Your task to perform on an android device: Open the calendar app, open the side menu, and click the "Day" option Image 0: 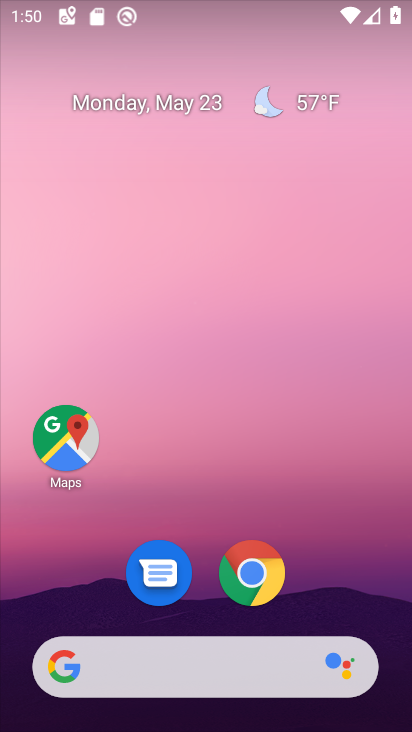
Step 0: drag from (325, 555) to (321, 135)
Your task to perform on an android device: Open the calendar app, open the side menu, and click the "Day" option Image 1: 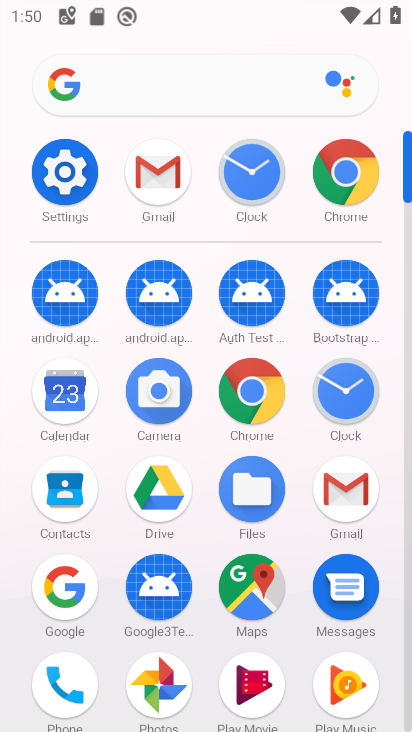
Step 1: click (68, 393)
Your task to perform on an android device: Open the calendar app, open the side menu, and click the "Day" option Image 2: 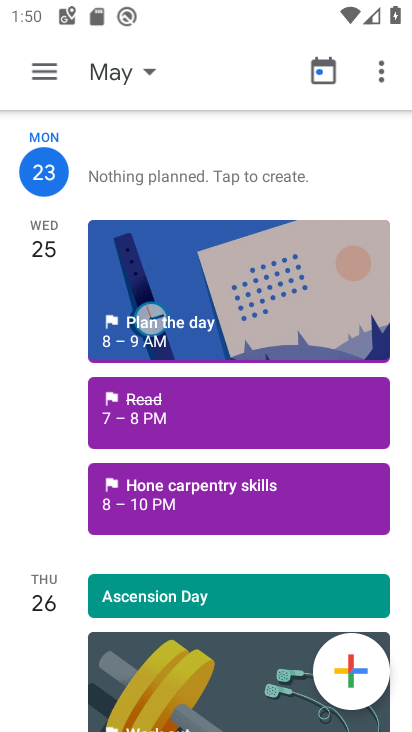
Step 2: click (48, 78)
Your task to perform on an android device: Open the calendar app, open the side menu, and click the "Day" option Image 3: 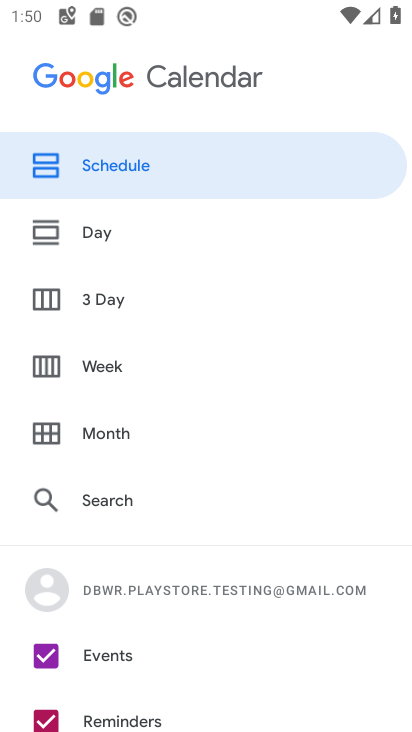
Step 3: click (116, 233)
Your task to perform on an android device: Open the calendar app, open the side menu, and click the "Day" option Image 4: 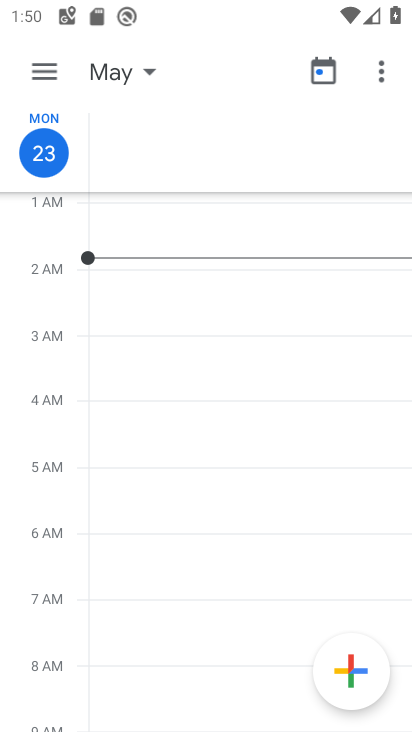
Step 4: task complete